Your task to perform on an android device: Open sound settings Image 0: 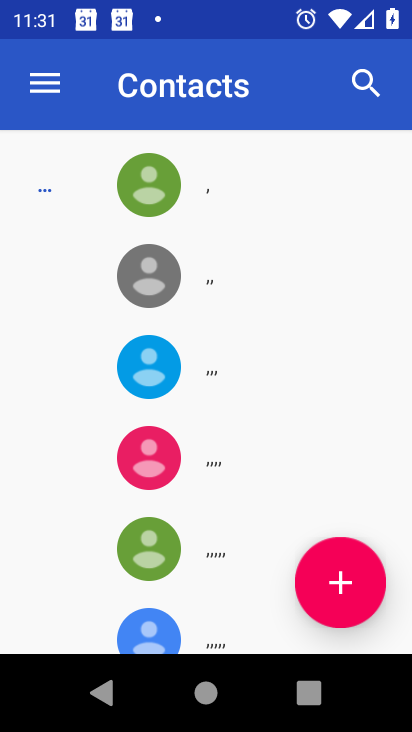
Step 0: click (243, 434)
Your task to perform on an android device: Open sound settings Image 1: 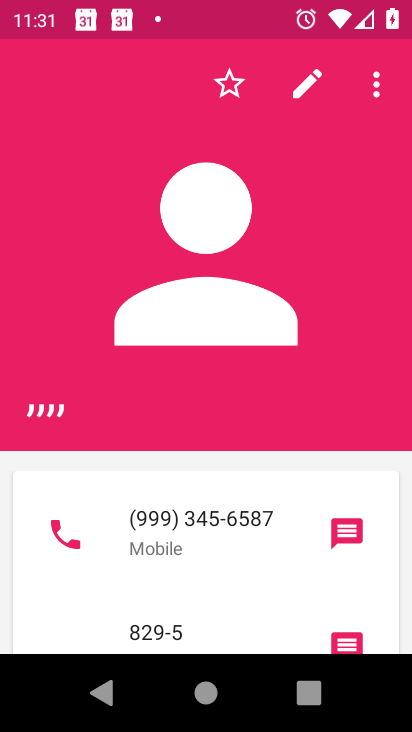
Step 1: task complete